Your task to perform on an android device: What's the weather going to be this weekend? Image 0: 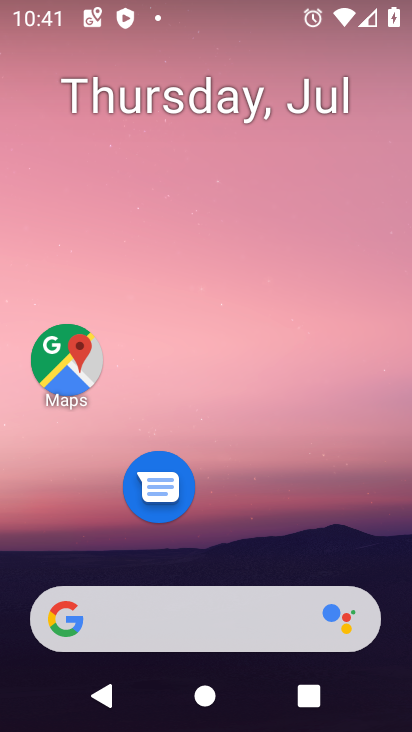
Step 0: drag from (265, 626) to (279, 50)
Your task to perform on an android device: What's the weather going to be this weekend? Image 1: 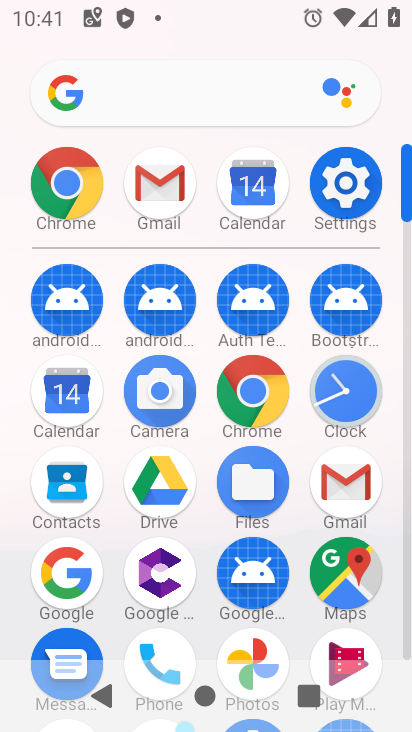
Step 1: drag from (244, 517) to (270, 226)
Your task to perform on an android device: What's the weather going to be this weekend? Image 2: 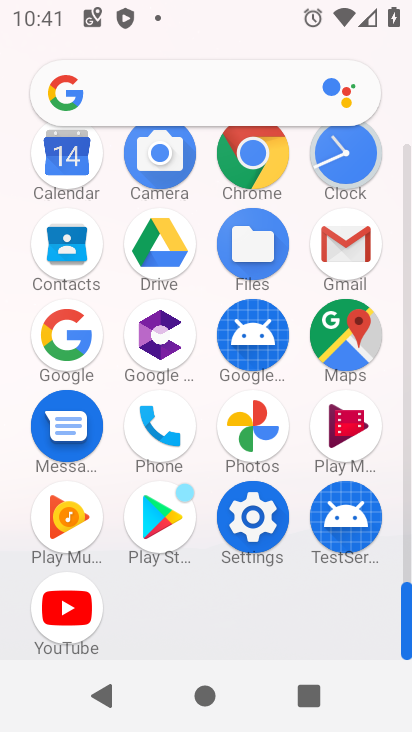
Step 2: drag from (270, 352) to (191, 725)
Your task to perform on an android device: What's the weather going to be this weekend? Image 3: 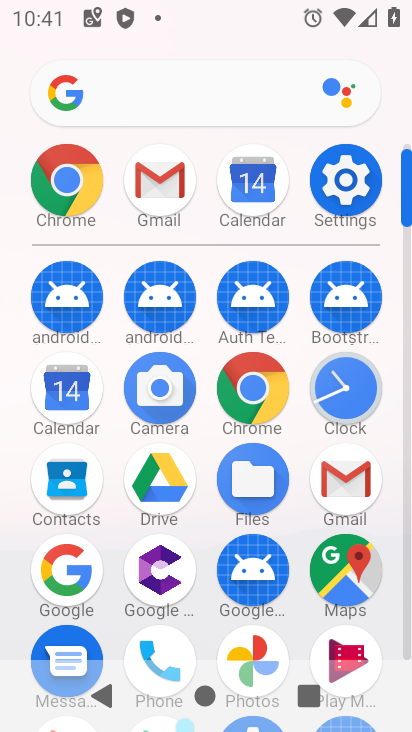
Step 3: click (79, 573)
Your task to perform on an android device: What's the weather going to be this weekend? Image 4: 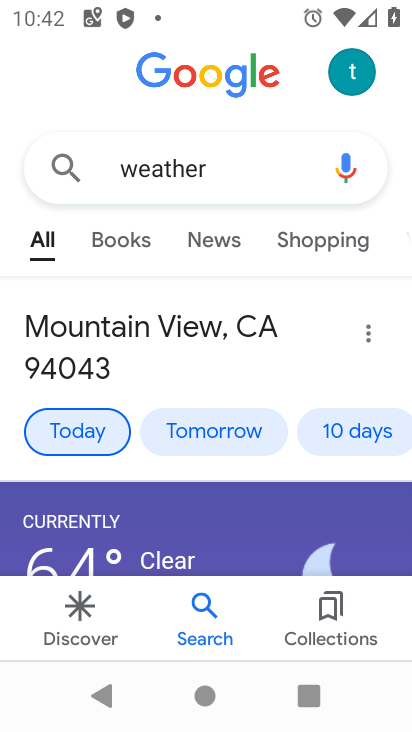
Step 4: drag from (164, 504) to (178, 136)
Your task to perform on an android device: What's the weather going to be this weekend? Image 5: 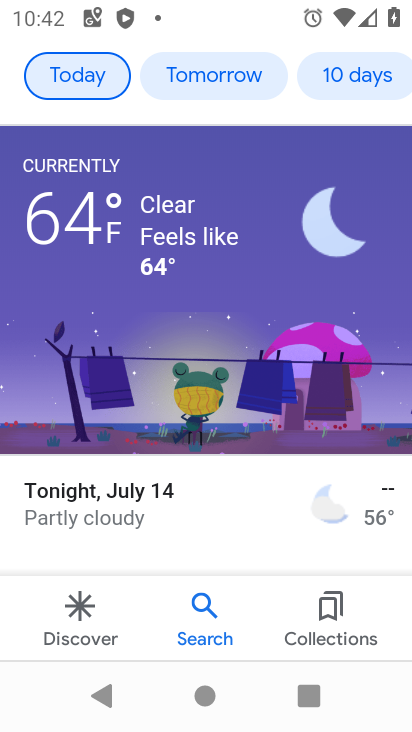
Step 5: drag from (270, 319) to (256, 565)
Your task to perform on an android device: What's the weather going to be this weekend? Image 6: 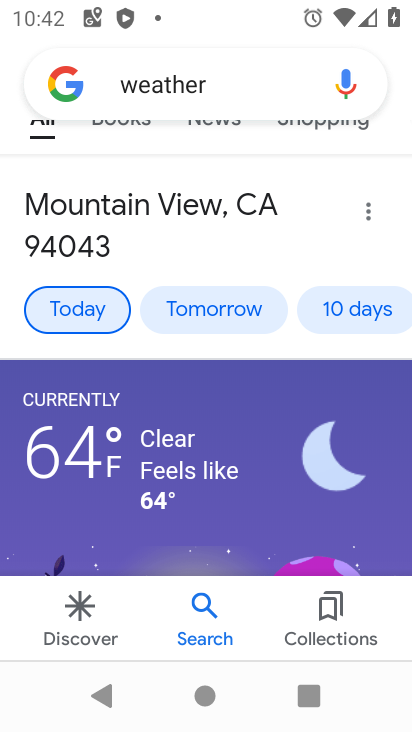
Step 6: click (355, 309)
Your task to perform on an android device: What's the weather going to be this weekend? Image 7: 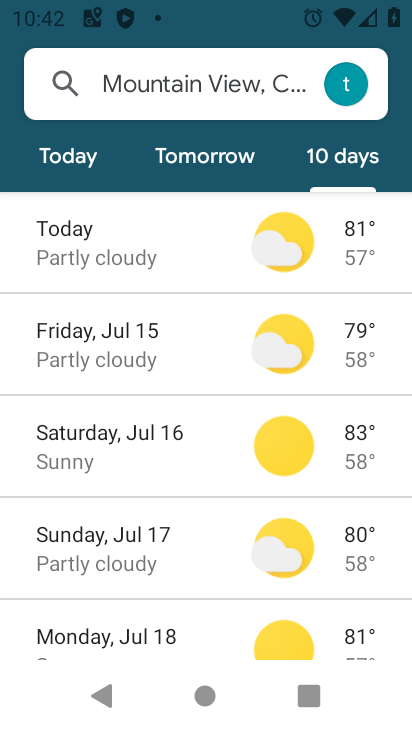
Step 7: task complete